Your task to perform on an android device: turn notification dots off Image 0: 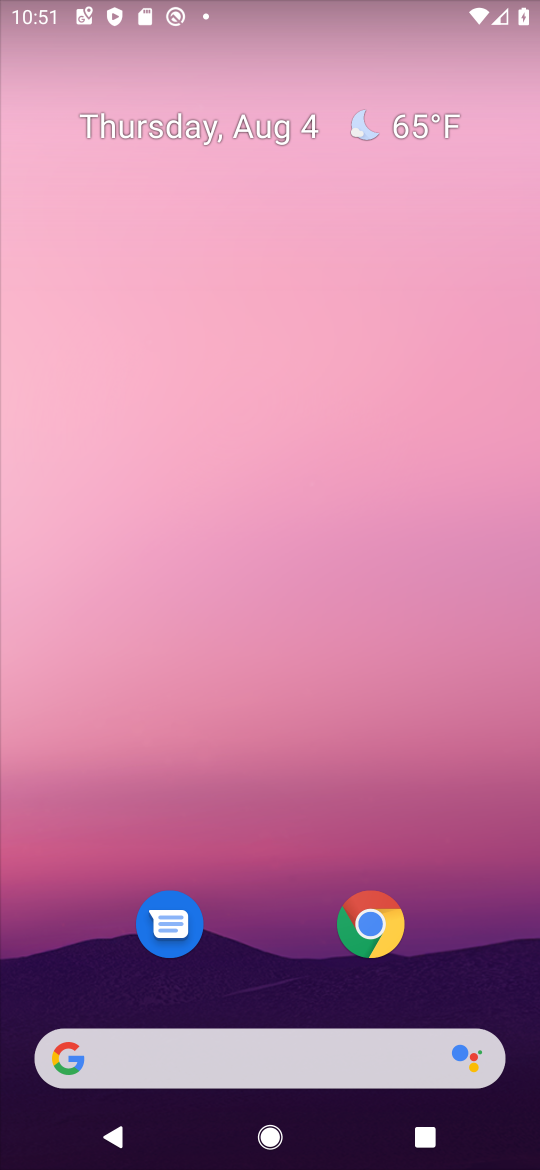
Step 0: drag from (329, 8) to (359, 607)
Your task to perform on an android device: turn notification dots off Image 1: 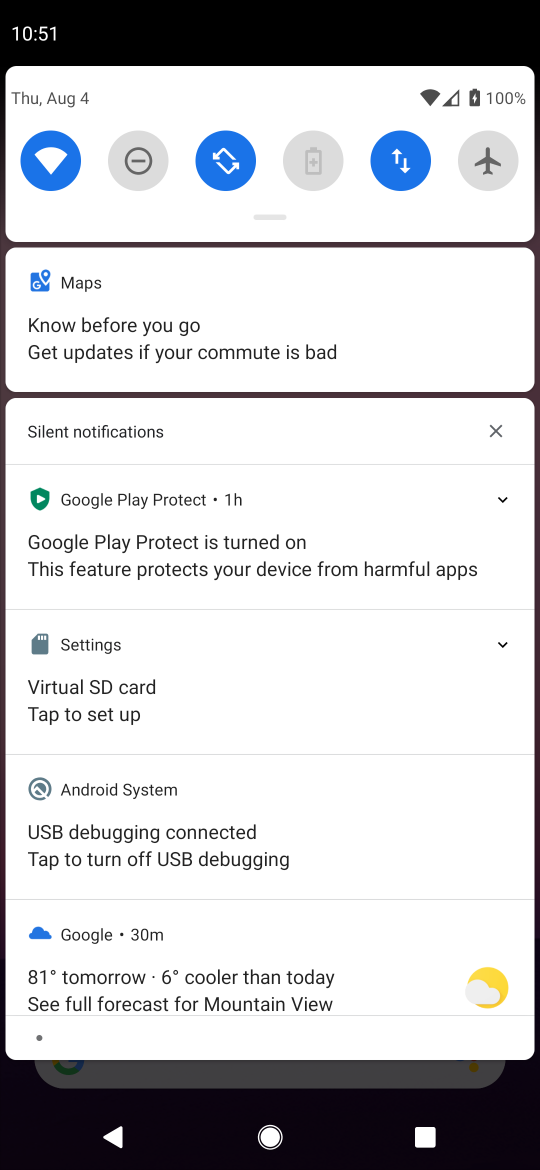
Step 1: task complete